Your task to perform on an android device: Open sound settings Image 0: 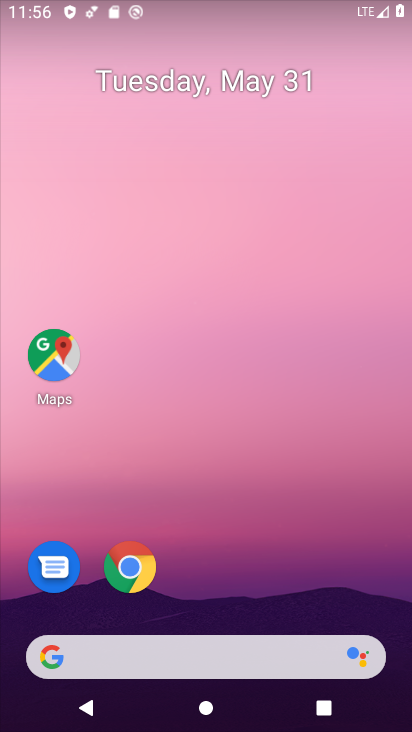
Step 0: drag from (263, 597) to (268, 84)
Your task to perform on an android device: Open sound settings Image 1: 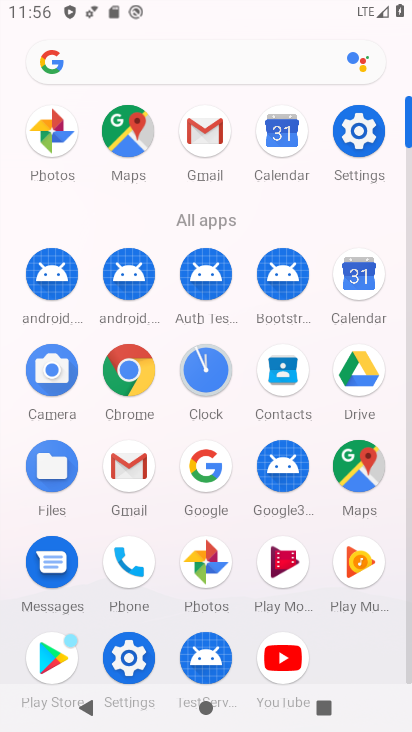
Step 1: click (347, 130)
Your task to perform on an android device: Open sound settings Image 2: 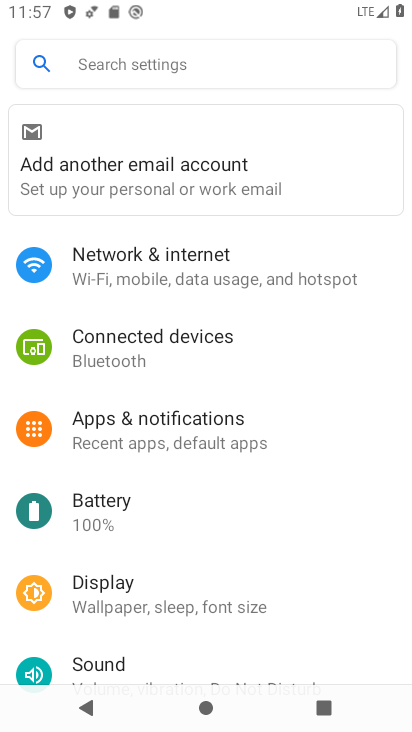
Step 2: click (192, 662)
Your task to perform on an android device: Open sound settings Image 3: 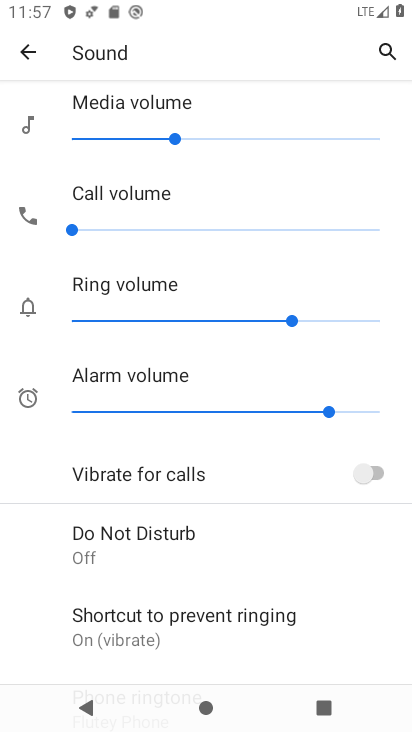
Step 3: task complete